Your task to perform on an android device: Go to eBay Image 0: 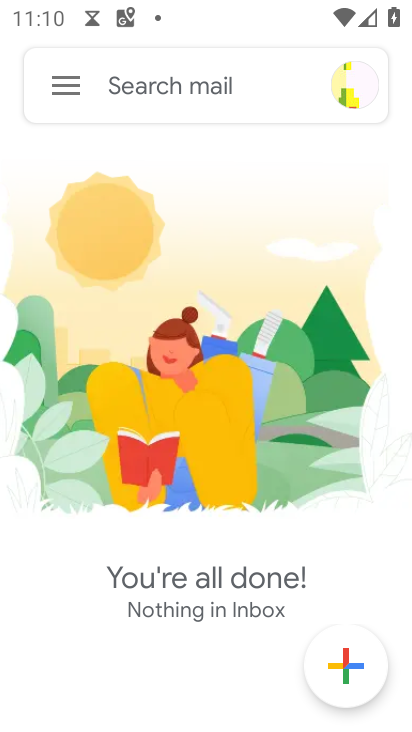
Step 0: press home button
Your task to perform on an android device: Go to eBay Image 1: 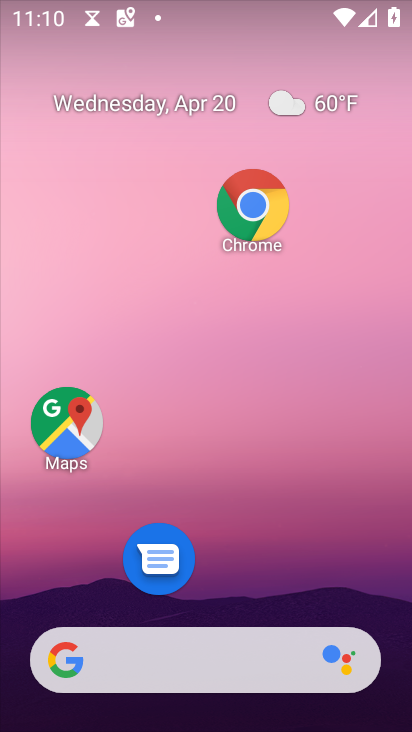
Step 1: drag from (299, 620) to (244, 5)
Your task to perform on an android device: Go to eBay Image 2: 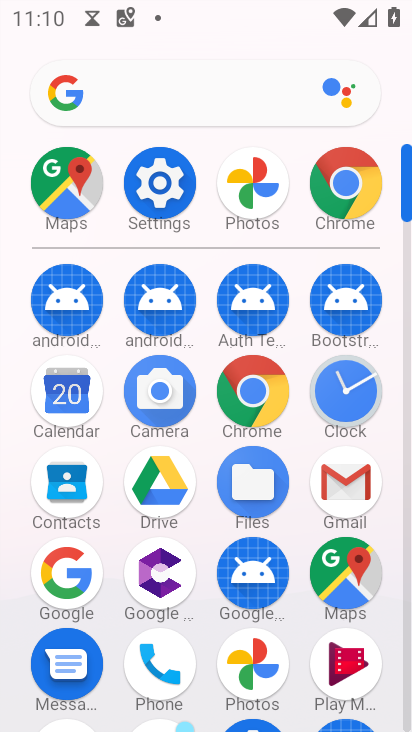
Step 2: click (247, 385)
Your task to perform on an android device: Go to eBay Image 3: 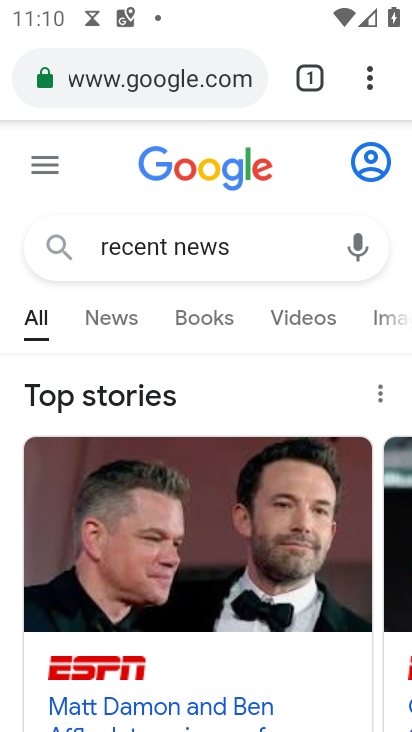
Step 3: click (163, 73)
Your task to perform on an android device: Go to eBay Image 4: 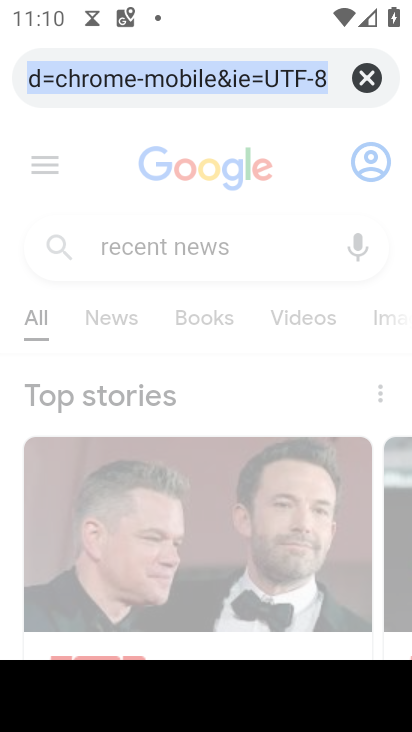
Step 4: click (365, 76)
Your task to perform on an android device: Go to eBay Image 5: 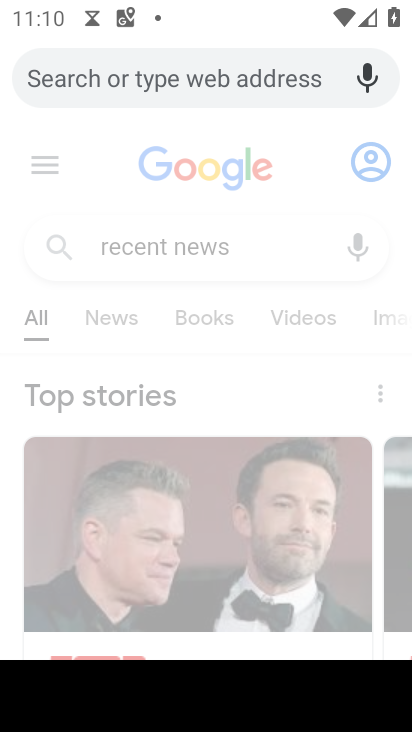
Step 5: type "ebay"
Your task to perform on an android device: Go to eBay Image 6: 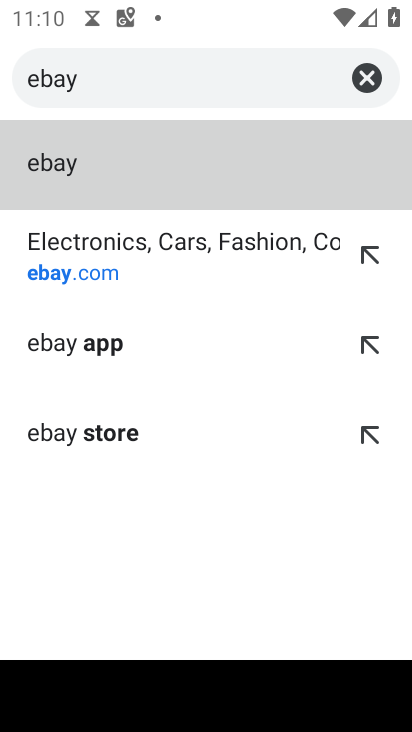
Step 6: click (149, 253)
Your task to perform on an android device: Go to eBay Image 7: 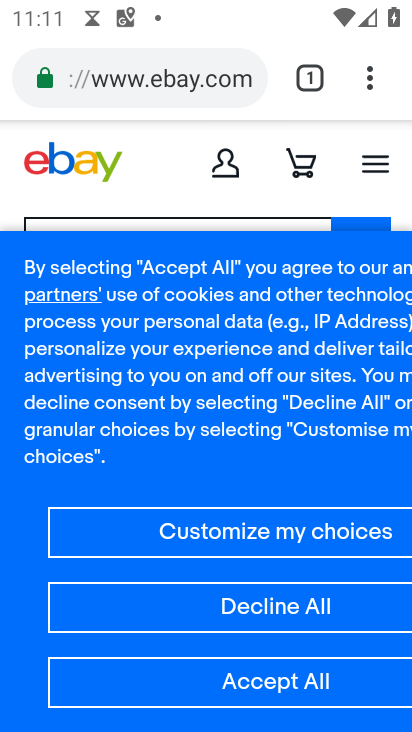
Step 7: task complete